Your task to perform on an android device: Open my contact list Image 0: 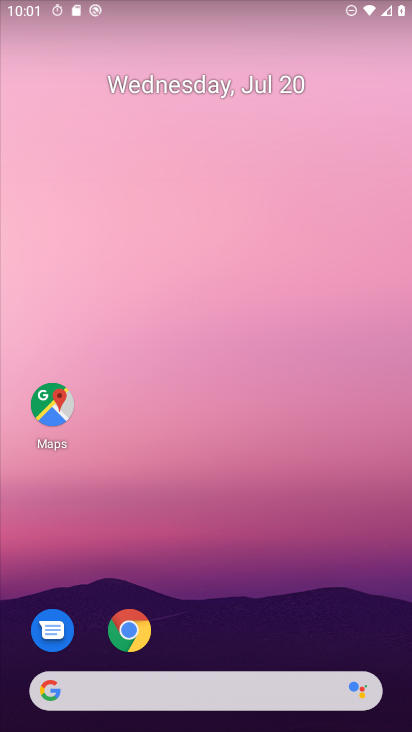
Step 0: drag from (219, 633) to (223, 282)
Your task to perform on an android device: Open my contact list Image 1: 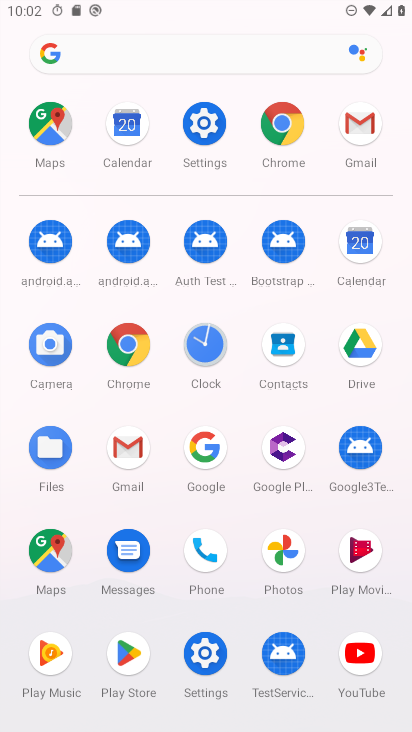
Step 1: click (203, 151)
Your task to perform on an android device: Open my contact list Image 2: 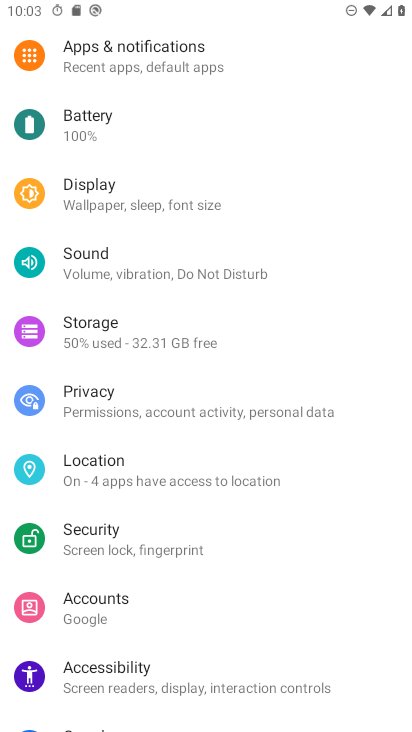
Step 2: drag from (141, 276) to (185, 530)
Your task to perform on an android device: Open my contact list Image 3: 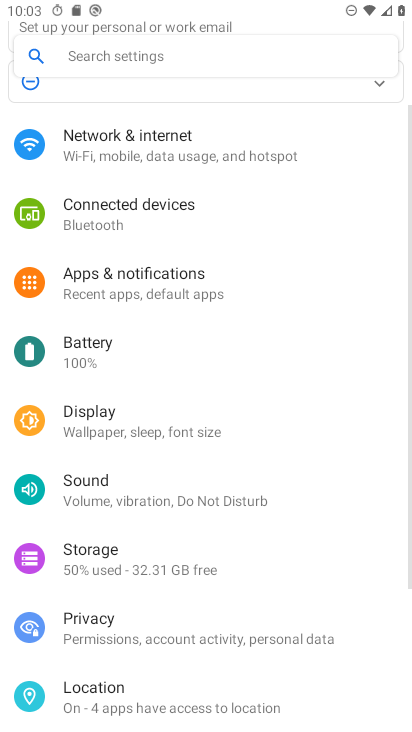
Step 3: press home button
Your task to perform on an android device: Open my contact list Image 4: 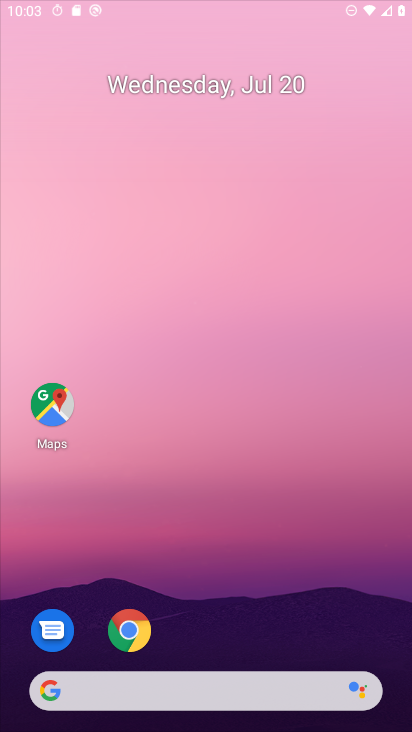
Step 4: drag from (182, 697) to (180, 70)
Your task to perform on an android device: Open my contact list Image 5: 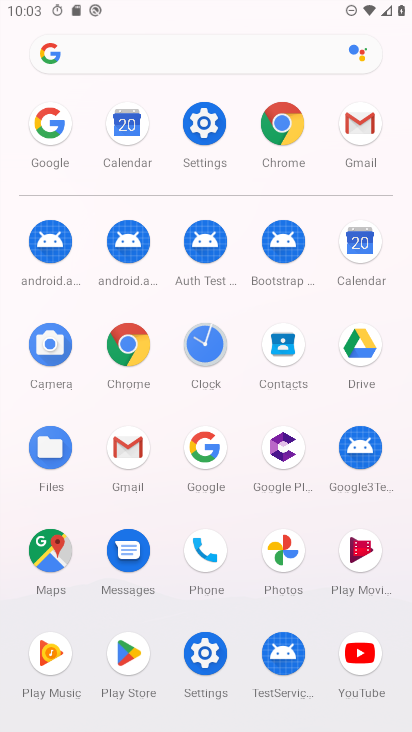
Step 5: click (296, 376)
Your task to perform on an android device: Open my contact list Image 6: 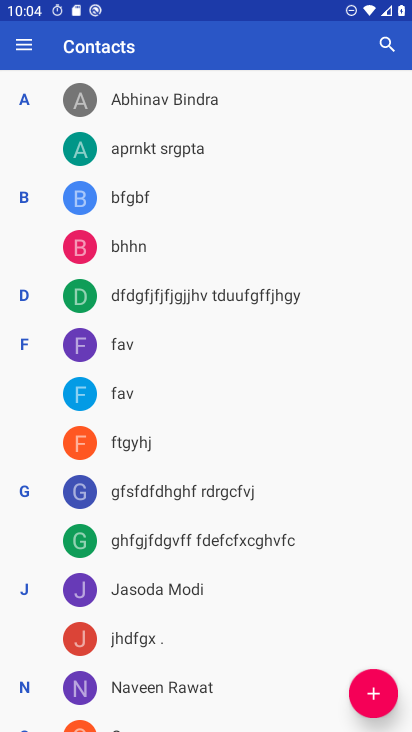
Step 6: task complete